Your task to perform on an android device: add a label to a message in the gmail app Image 0: 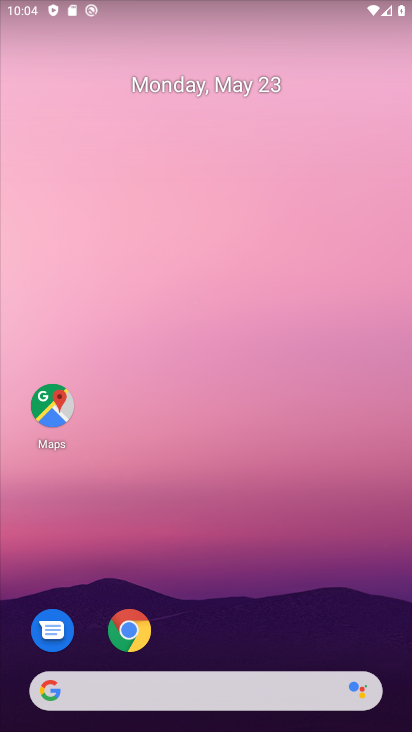
Step 0: drag from (354, 618) to (397, 2)
Your task to perform on an android device: add a label to a message in the gmail app Image 1: 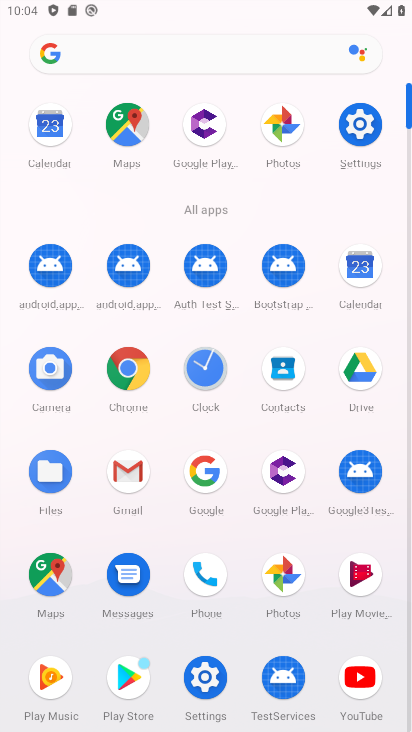
Step 1: click (130, 477)
Your task to perform on an android device: add a label to a message in the gmail app Image 2: 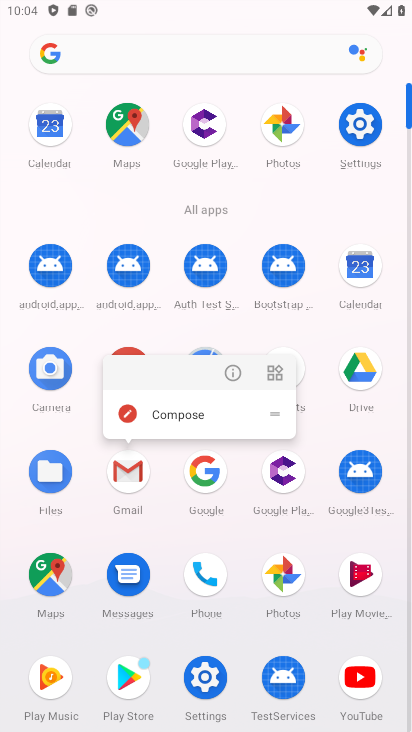
Step 2: click (130, 477)
Your task to perform on an android device: add a label to a message in the gmail app Image 3: 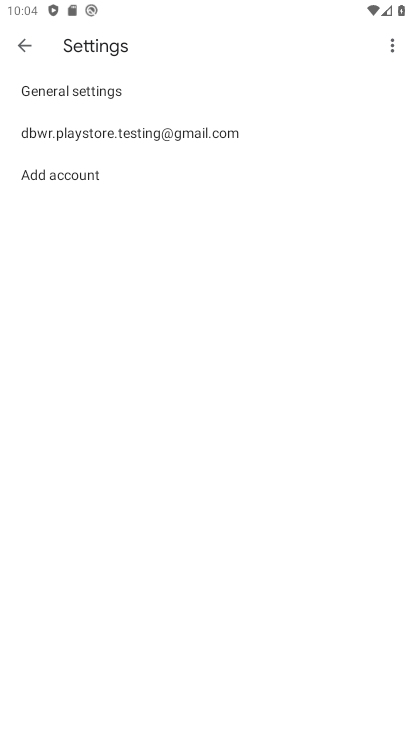
Step 3: click (25, 52)
Your task to perform on an android device: add a label to a message in the gmail app Image 4: 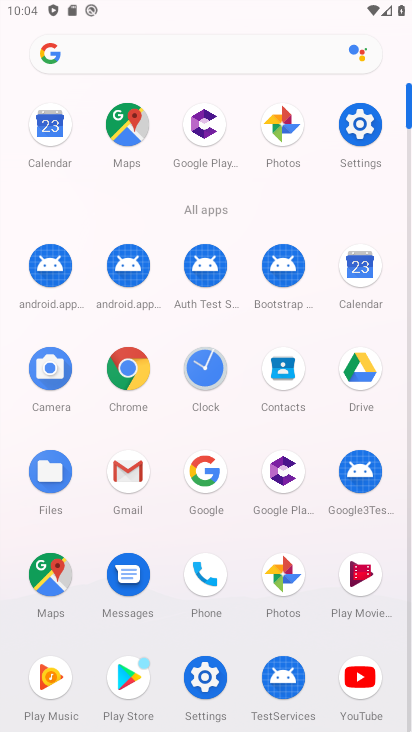
Step 4: click (131, 481)
Your task to perform on an android device: add a label to a message in the gmail app Image 5: 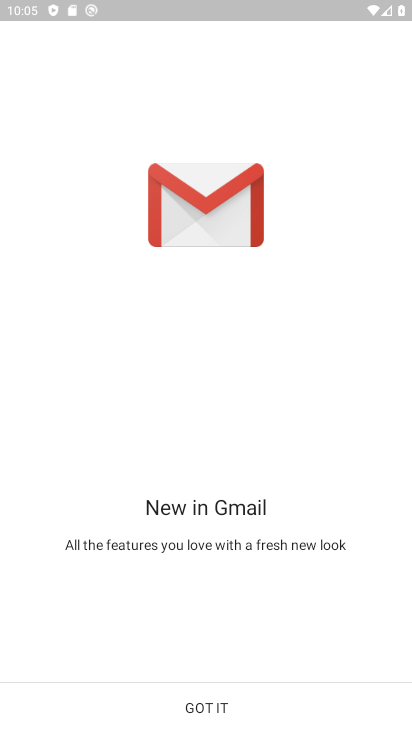
Step 5: click (208, 712)
Your task to perform on an android device: add a label to a message in the gmail app Image 6: 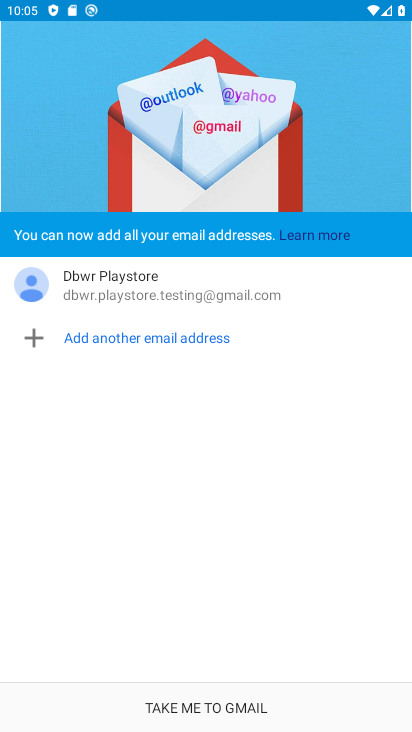
Step 6: click (208, 712)
Your task to perform on an android device: add a label to a message in the gmail app Image 7: 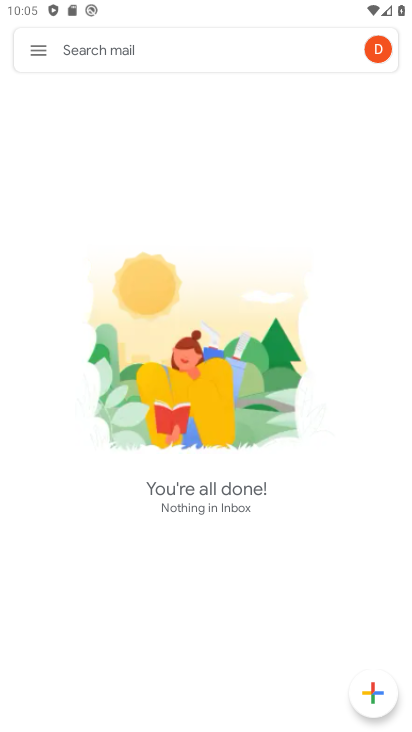
Step 7: click (31, 52)
Your task to perform on an android device: add a label to a message in the gmail app Image 8: 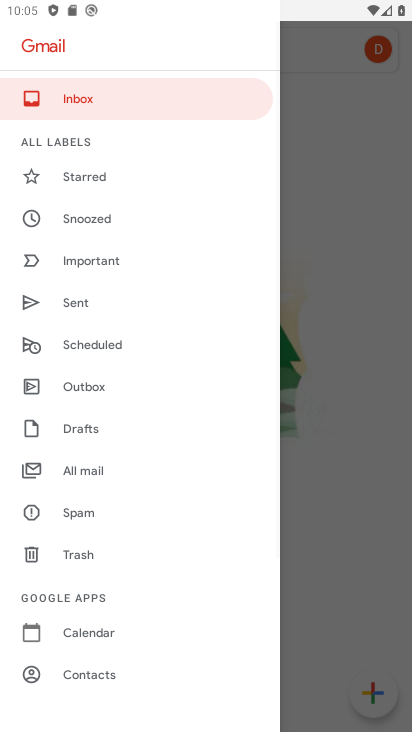
Step 8: click (83, 468)
Your task to perform on an android device: add a label to a message in the gmail app Image 9: 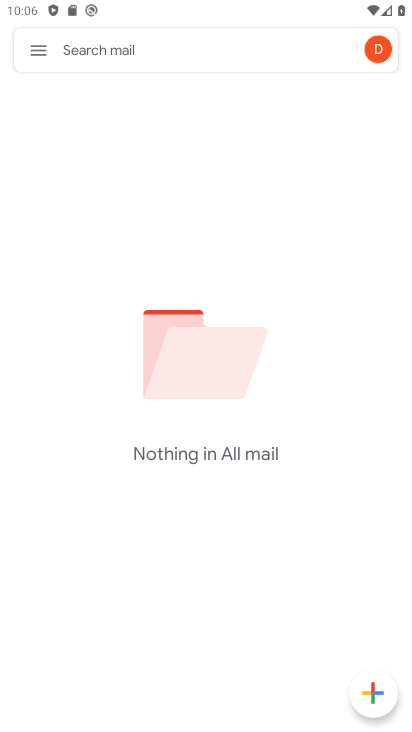
Step 9: task complete